Your task to perform on an android device: turn pop-ups on in chrome Image 0: 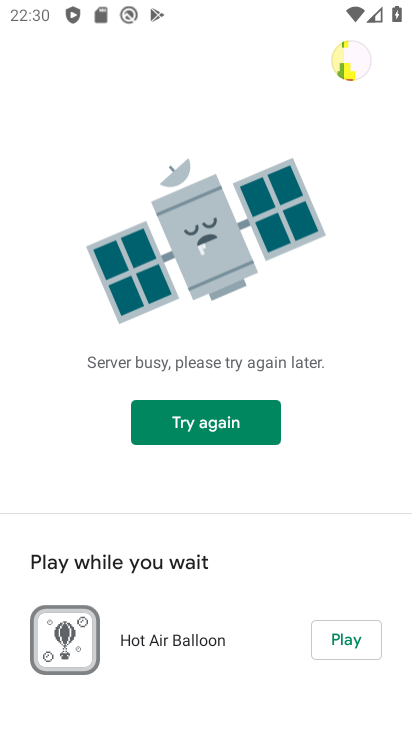
Step 0: press home button
Your task to perform on an android device: turn pop-ups on in chrome Image 1: 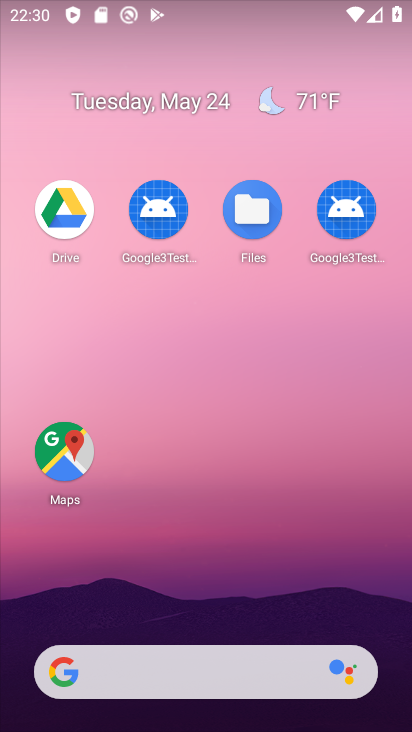
Step 1: drag from (213, 631) to (162, 145)
Your task to perform on an android device: turn pop-ups on in chrome Image 2: 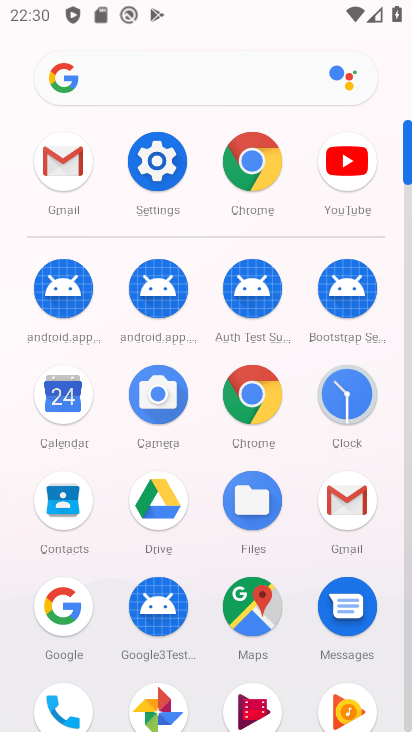
Step 2: click (236, 378)
Your task to perform on an android device: turn pop-ups on in chrome Image 3: 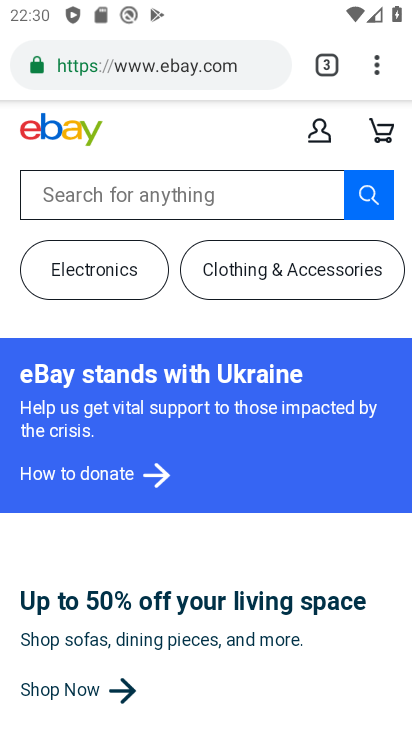
Step 3: click (368, 76)
Your task to perform on an android device: turn pop-ups on in chrome Image 4: 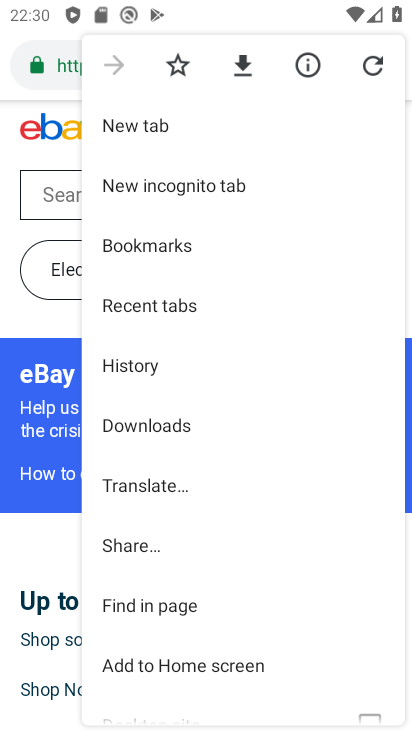
Step 4: drag from (170, 548) to (131, 158)
Your task to perform on an android device: turn pop-ups on in chrome Image 5: 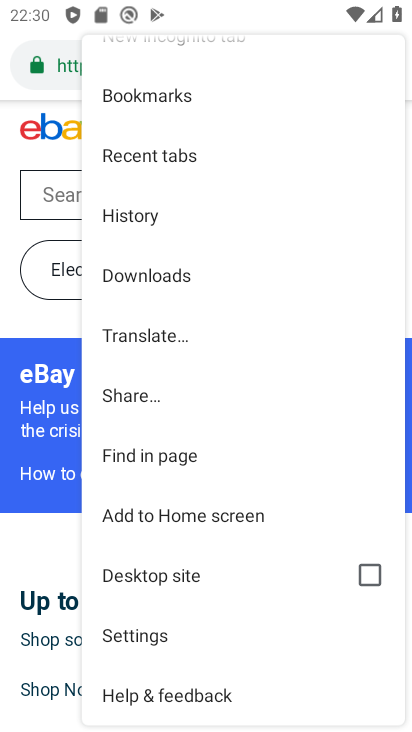
Step 5: click (135, 631)
Your task to perform on an android device: turn pop-ups on in chrome Image 6: 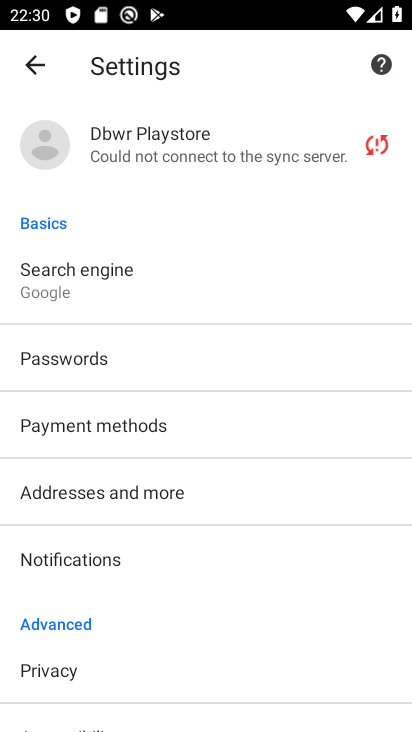
Step 6: drag from (135, 631) to (102, 118)
Your task to perform on an android device: turn pop-ups on in chrome Image 7: 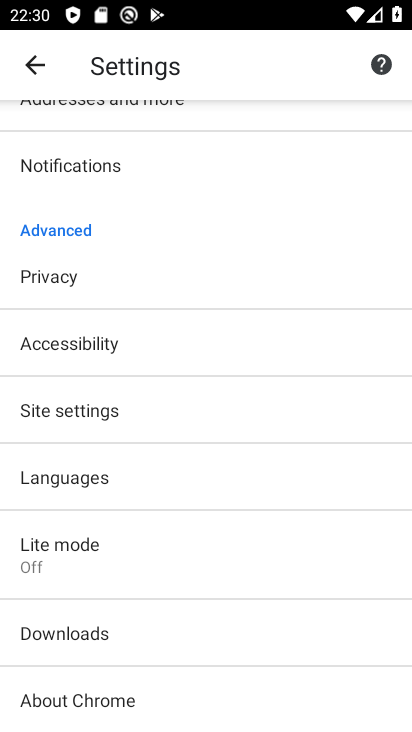
Step 7: click (79, 404)
Your task to perform on an android device: turn pop-ups on in chrome Image 8: 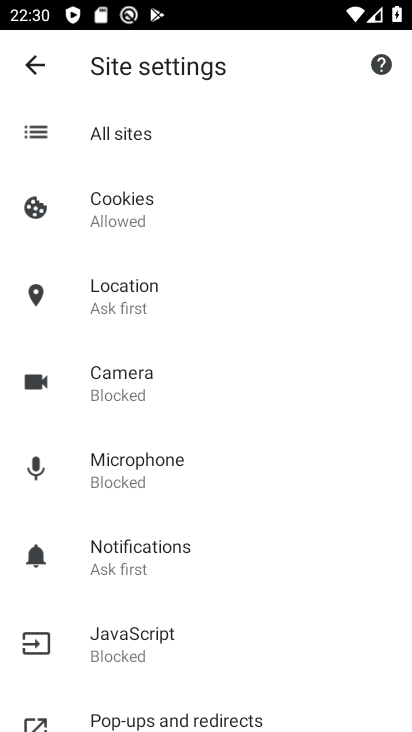
Step 8: click (150, 717)
Your task to perform on an android device: turn pop-ups on in chrome Image 9: 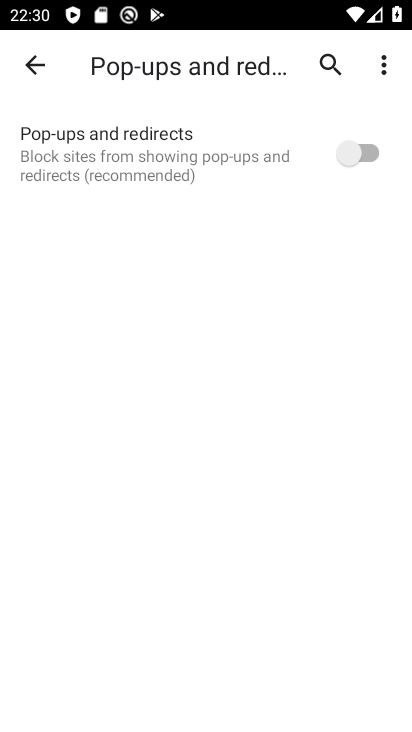
Step 9: click (366, 164)
Your task to perform on an android device: turn pop-ups on in chrome Image 10: 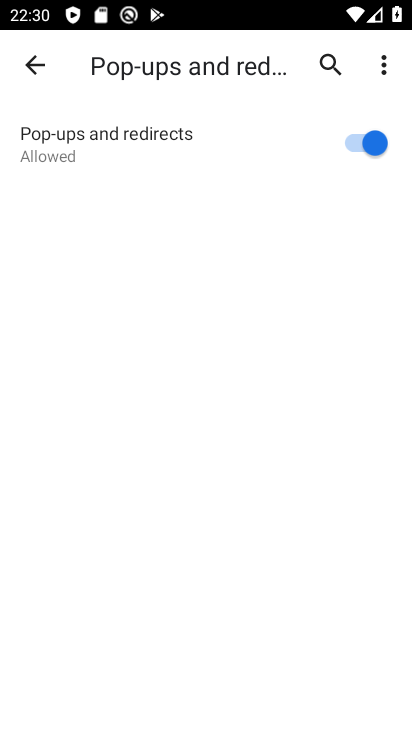
Step 10: task complete